Your task to perform on an android device: Show me the alarms in the clock app Image 0: 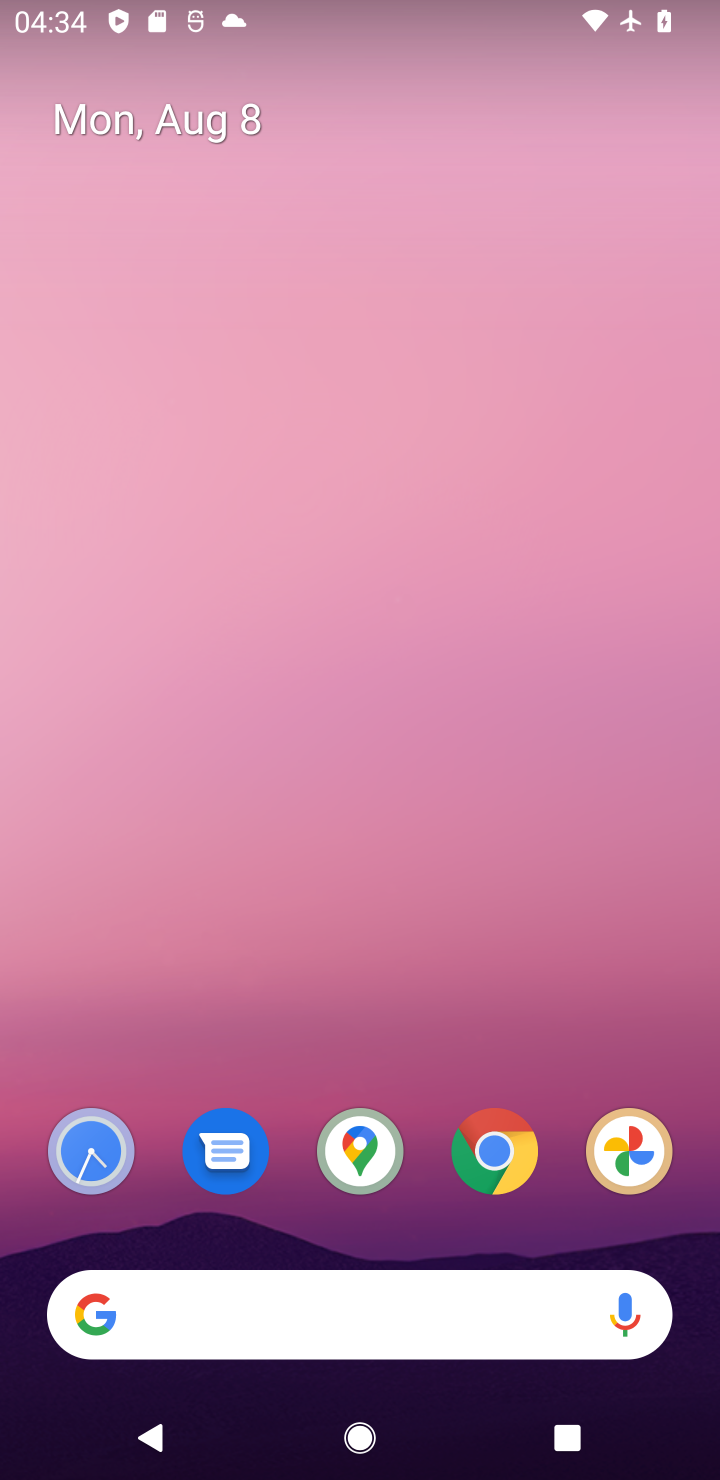
Step 0: drag from (305, 998) to (305, 222)
Your task to perform on an android device: Show me the alarms in the clock app Image 1: 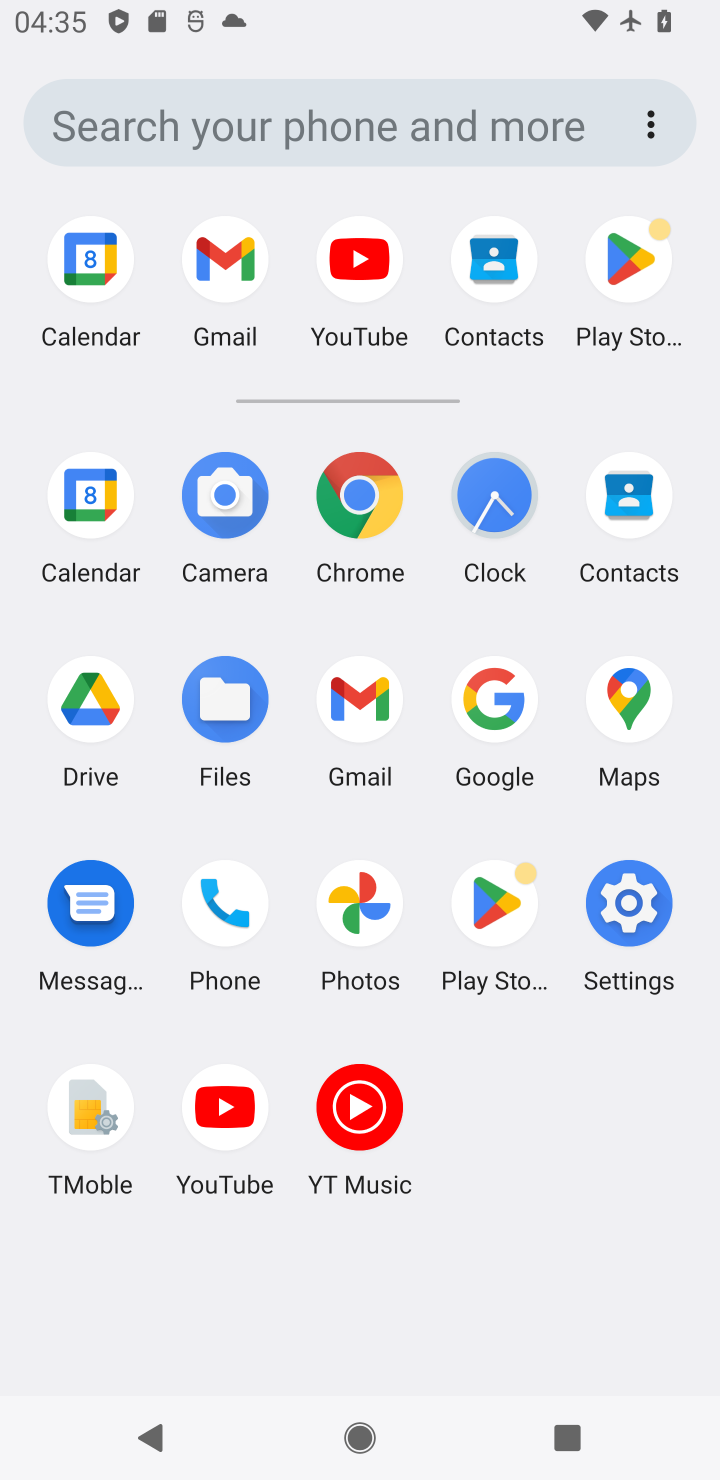
Step 1: click (500, 515)
Your task to perform on an android device: Show me the alarms in the clock app Image 2: 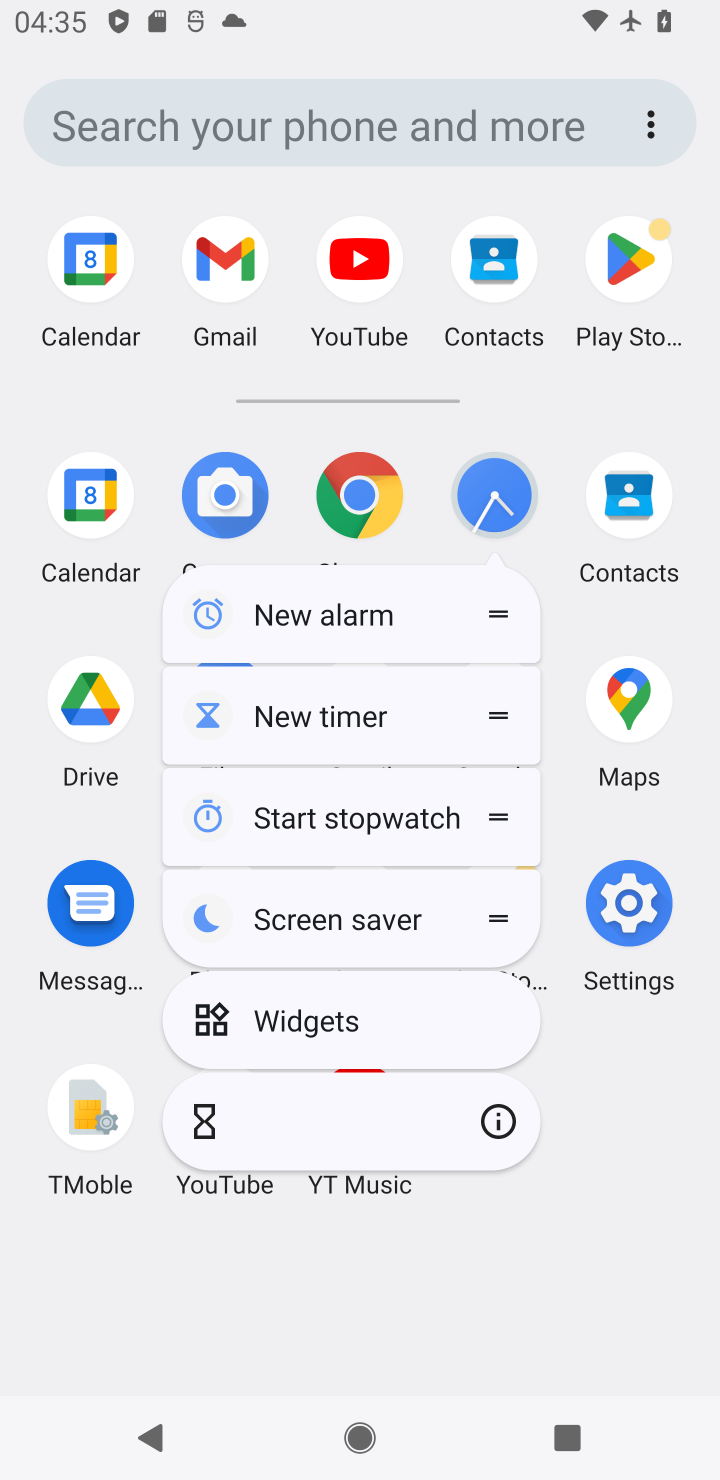
Step 2: click (500, 515)
Your task to perform on an android device: Show me the alarms in the clock app Image 3: 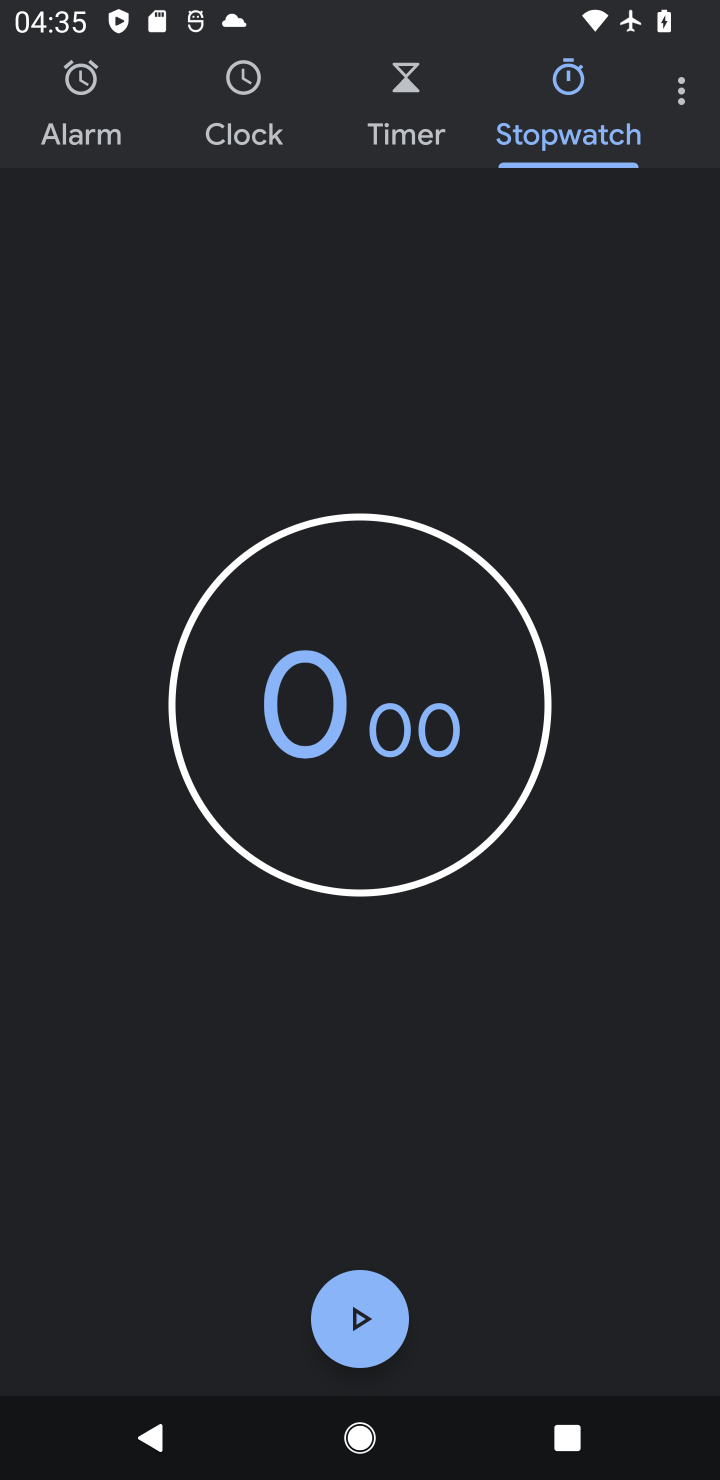
Step 3: click (134, 106)
Your task to perform on an android device: Show me the alarms in the clock app Image 4: 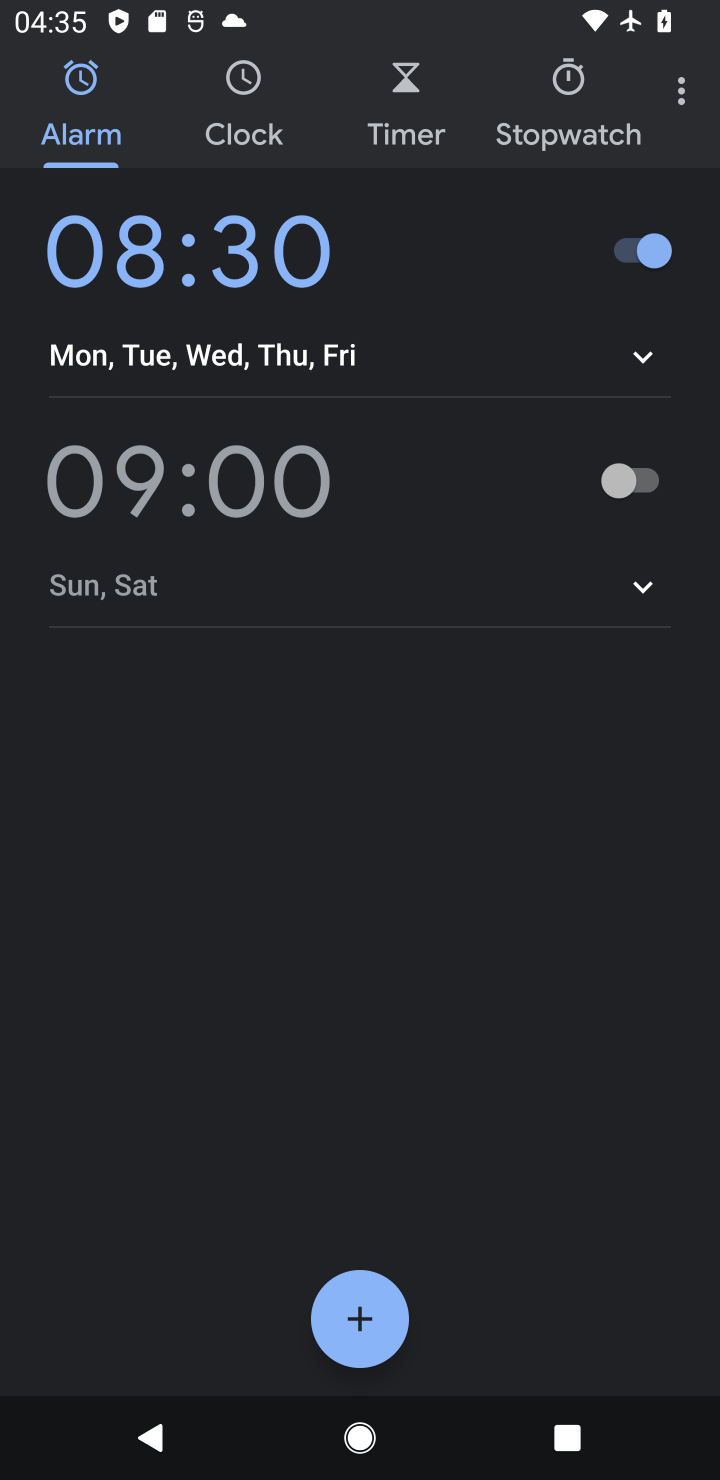
Step 4: task complete